Your task to perform on an android device: check storage Image 0: 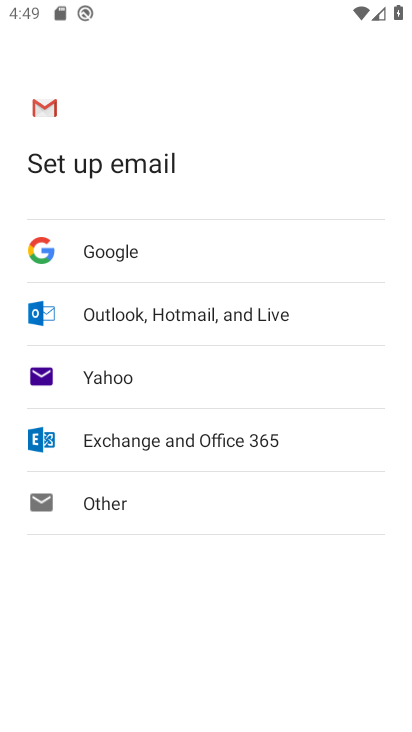
Step 0: drag from (217, 624) to (253, 620)
Your task to perform on an android device: check storage Image 1: 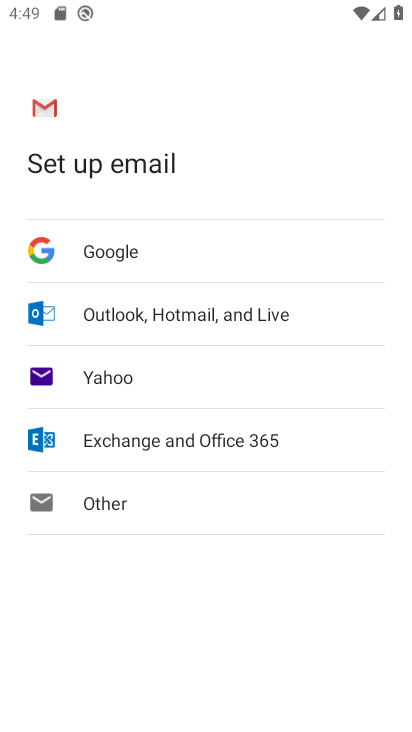
Step 1: press home button
Your task to perform on an android device: check storage Image 2: 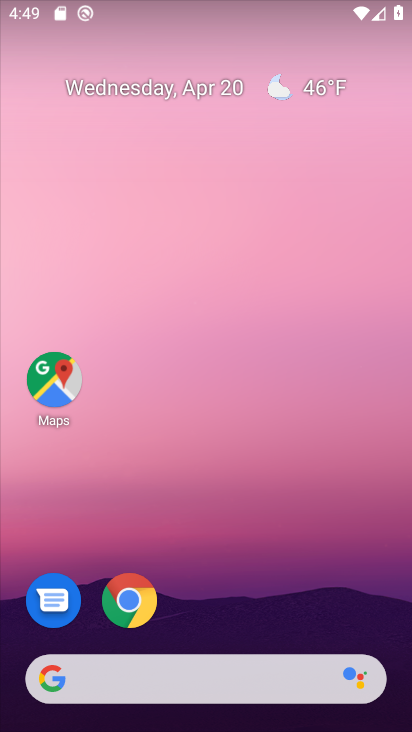
Step 2: drag from (207, 622) to (212, 69)
Your task to perform on an android device: check storage Image 3: 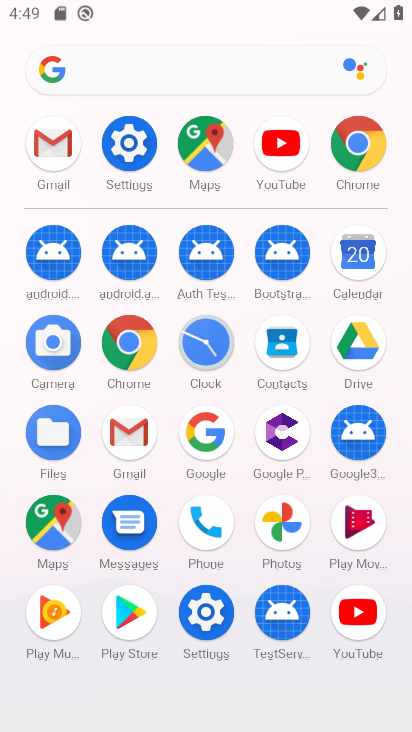
Step 3: click (201, 608)
Your task to perform on an android device: check storage Image 4: 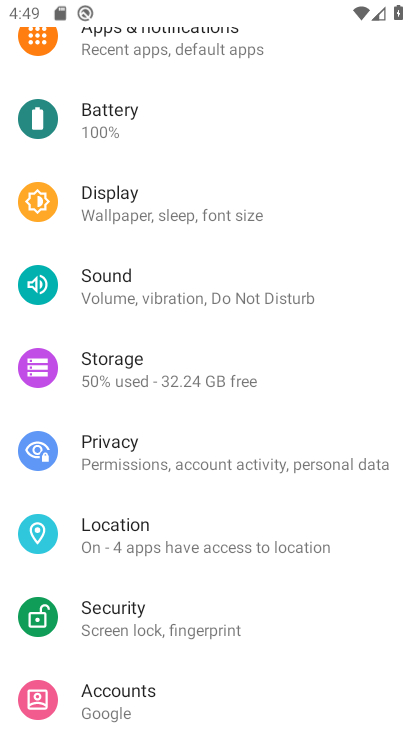
Step 4: click (148, 366)
Your task to perform on an android device: check storage Image 5: 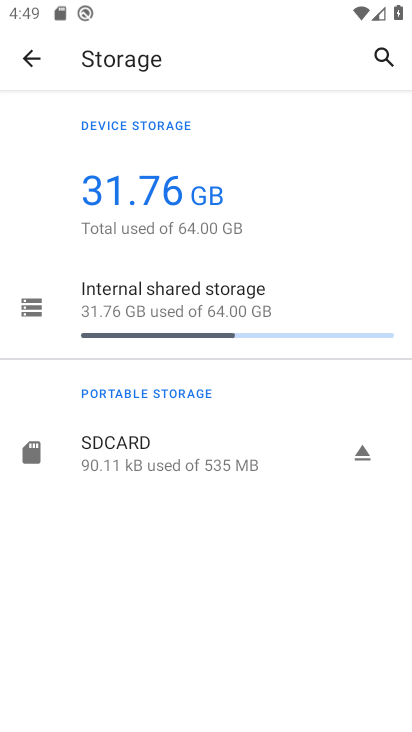
Step 5: task complete